Your task to perform on an android device: show emergency info Image 0: 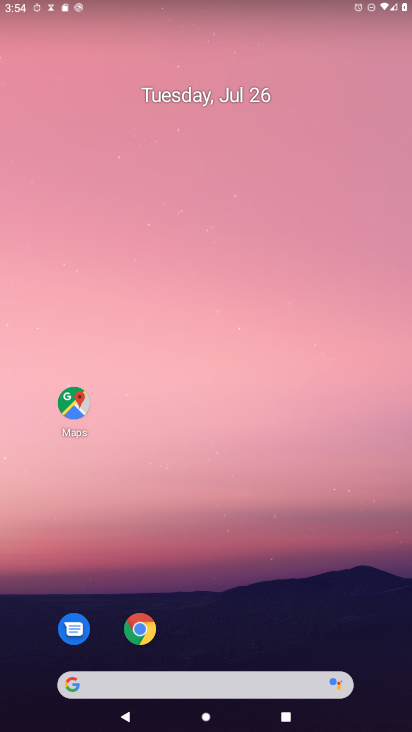
Step 0: drag from (139, 632) to (242, 2)
Your task to perform on an android device: show emergency info Image 1: 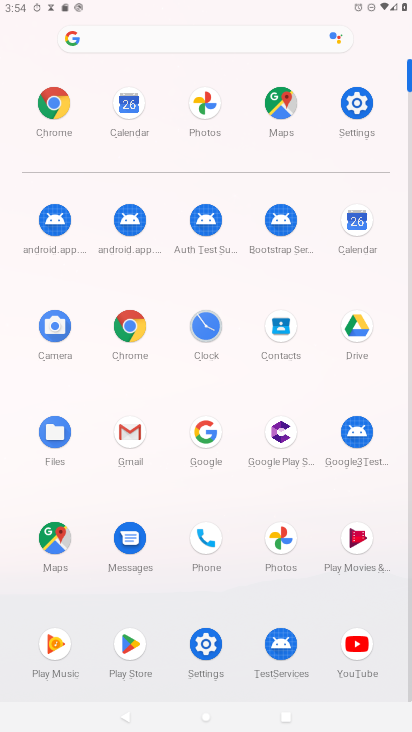
Step 1: click (351, 105)
Your task to perform on an android device: show emergency info Image 2: 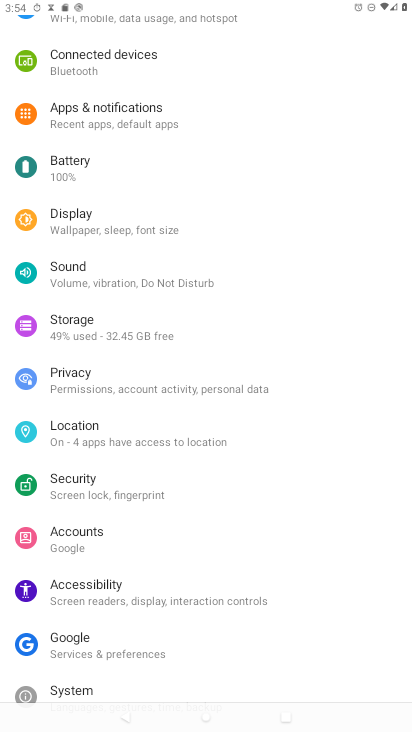
Step 2: drag from (185, 696) to (242, 274)
Your task to perform on an android device: show emergency info Image 3: 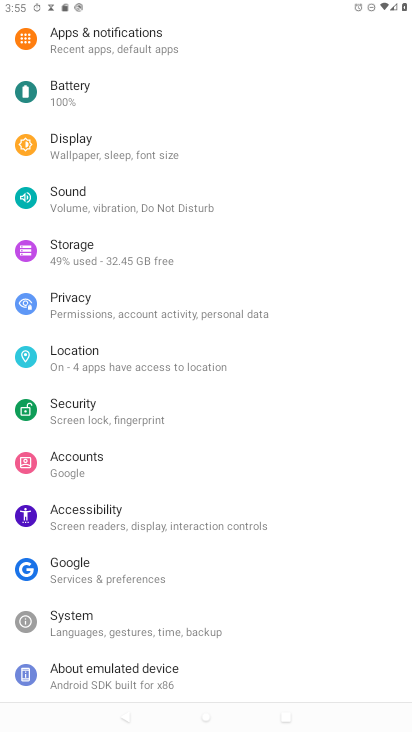
Step 3: click (170, 682)
Your task to perform on an android device: show emergency info Image 4: 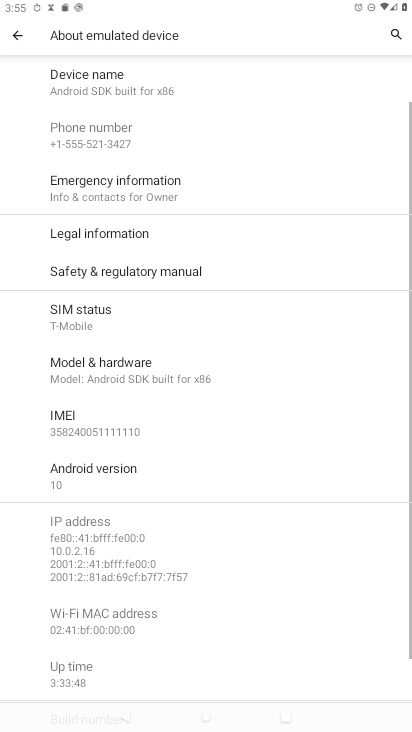
Step 4: click (121, 189)
Your task to perform on an android device: show emergency info Image 5: 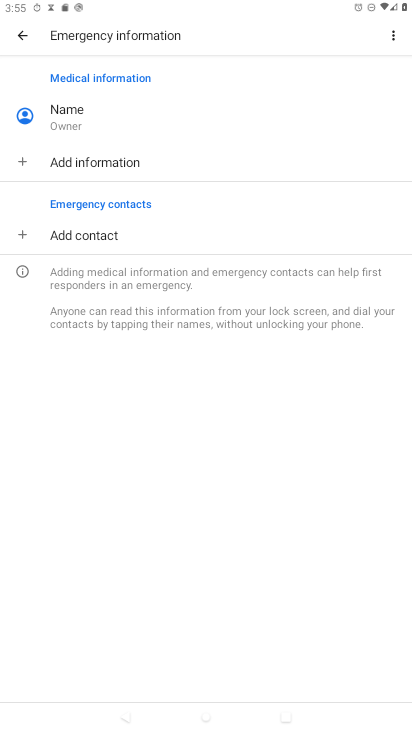
Step 5: task complete